Your task to perform on an android device: Open Yahoo.com Image 0: 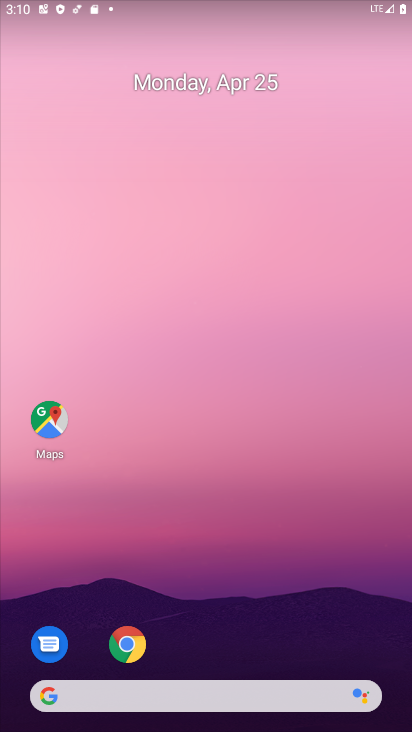
Step 0: click (129, 646)
Your task to perform on an android device: Open Yahoo.com Image 1: 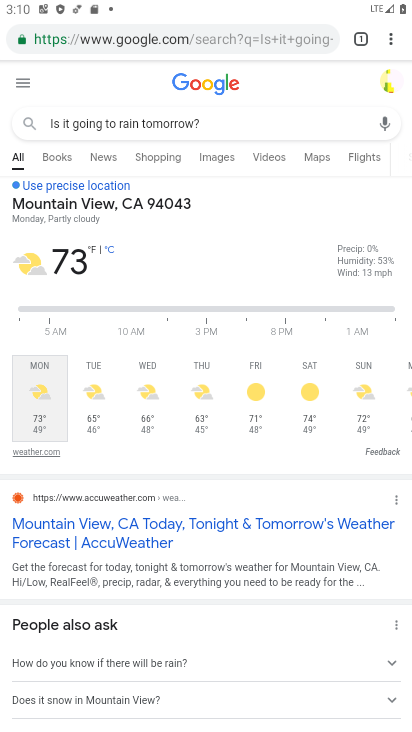
Step 1: click (361, 40)
Your task to perform on an android device: Open Yahoo.com Image 2: 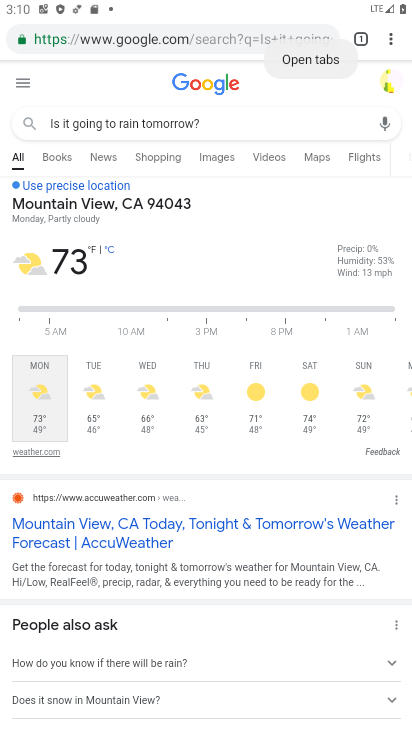
Step 2: click (361, 40)
Your task to perform on an android device: Open Yahoo.com Image 3: 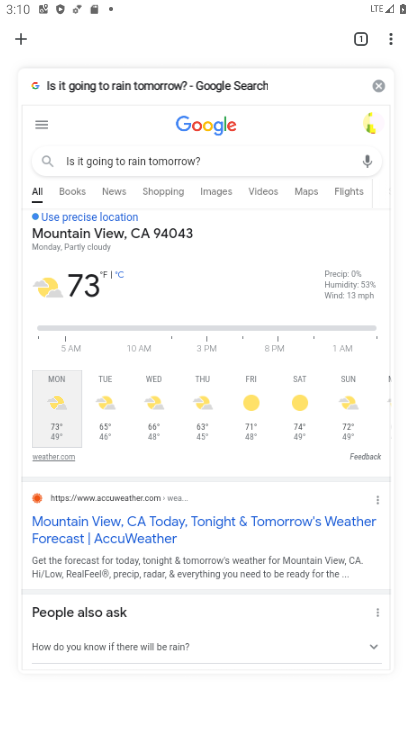
Step 3: click (18, 36)
Your task to perform on an android device: Open Yahoo.com Image 4: 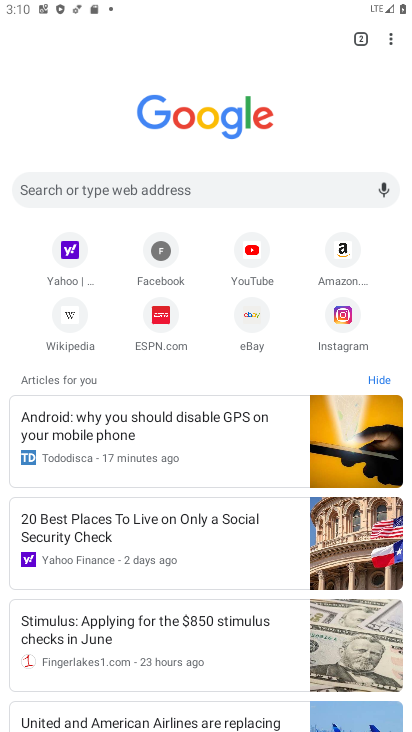
Step 4: click (73, 256)
Your task to perform on an android device: Open Yahoo.com Image 5: 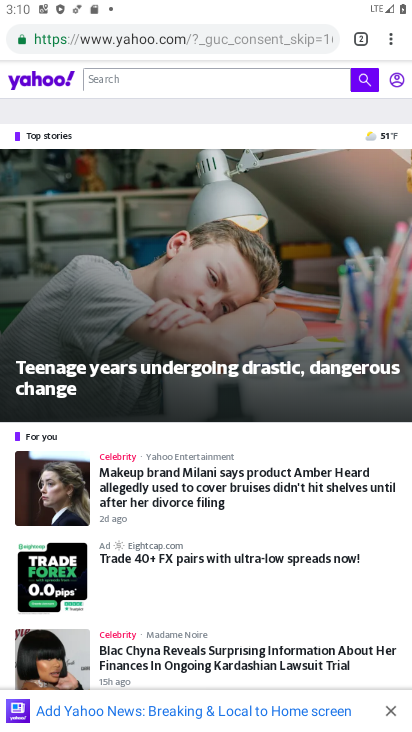
Step 5: task complete